Your task to perform on an android device: Open Amazon Image 0: 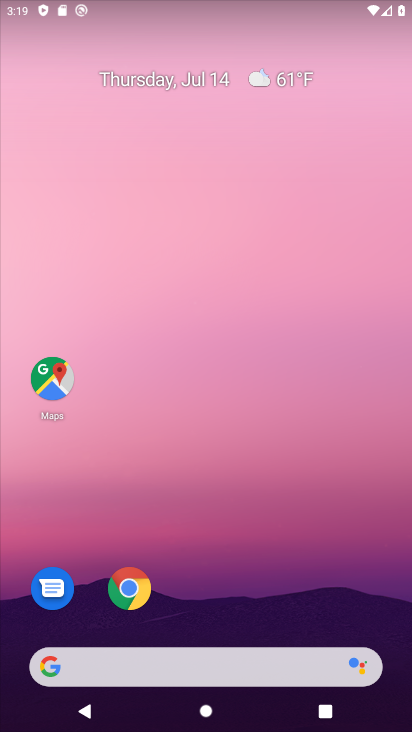
Step 0: click (128, 667)
Your task to perform on an android device: Open Amazon Image 1: 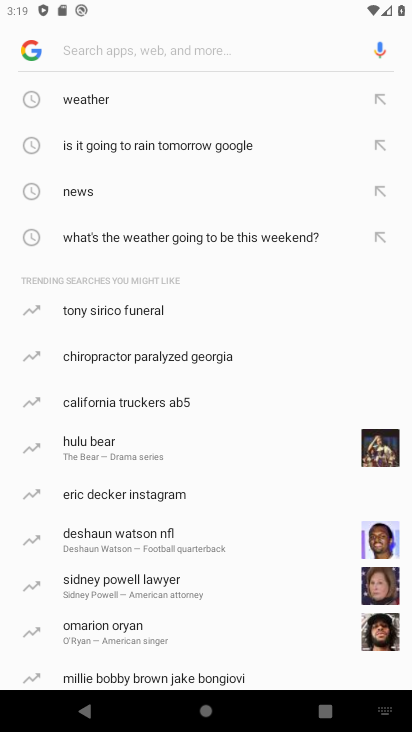
Step 1: type " Amazon"
Your task to perform on an android device: Open Amazon Image 2: 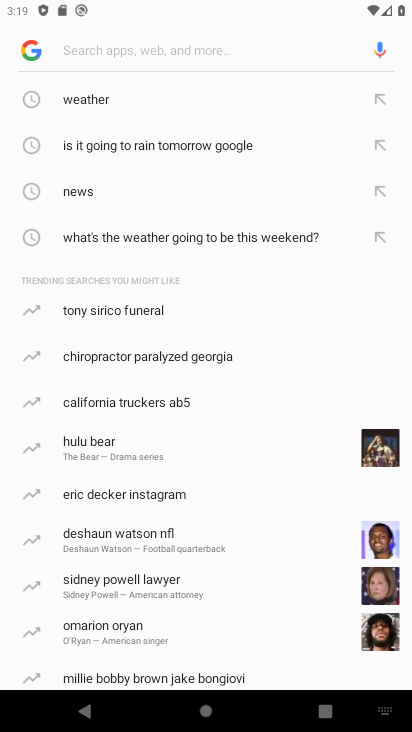
Step 2: click (80, 36)
Your task to perform on an android device: Open Amazon Image 3: 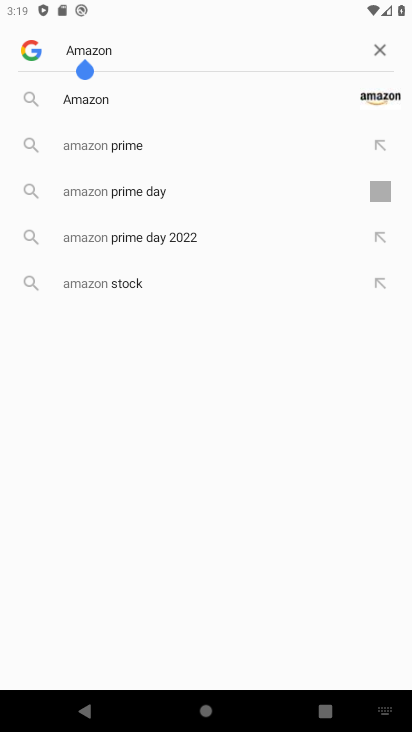
Step 3: click (377, 96)
Your task to perform on an android device: Open Amazon Image 4: 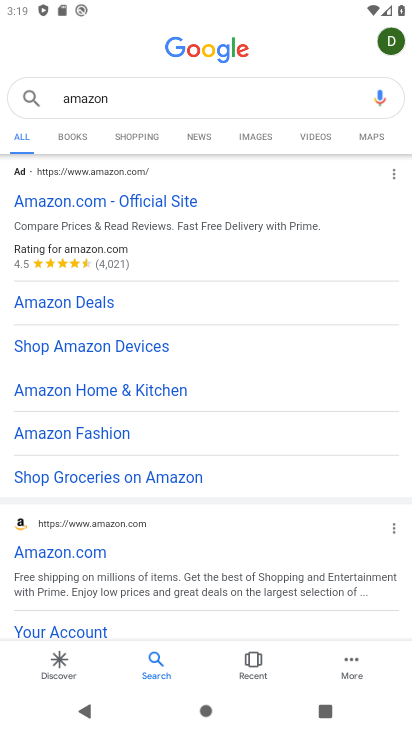
Step 4: click (88, 552)
Your task to perform on an android device: Open Amazon Image 5: 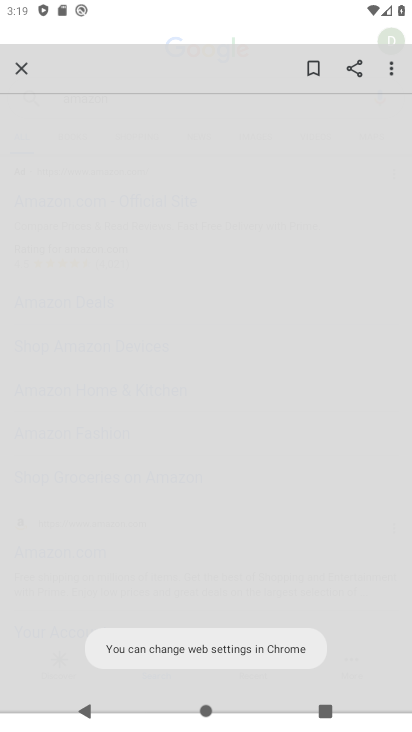
Step 5: click (93, 520)
Your task to perform on an android device: Open Amazon Image 6: 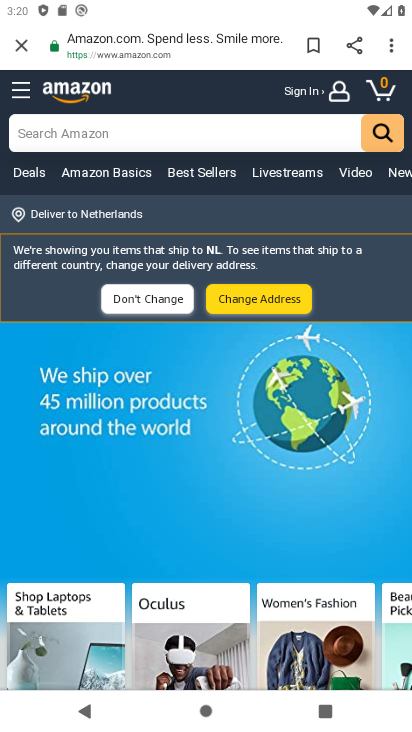
Step 6: task complete